Your task to perform on an android device: Open battery settings Image 0: 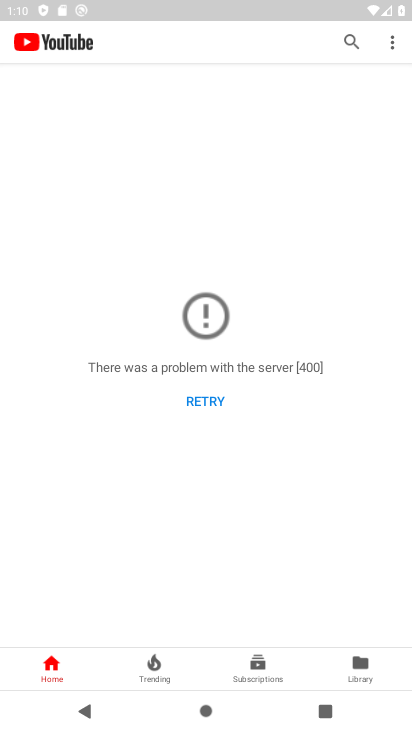
Step 0: press home button
Your task to perform on an android device: Open battery settings Image 1: 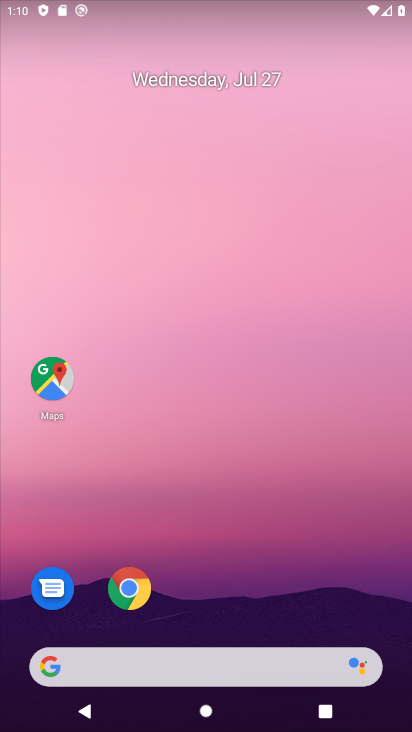
Step 1: drag from (233, 612) to (233, 21)
Your task to perform on an android device: Open battery settings Image 2: 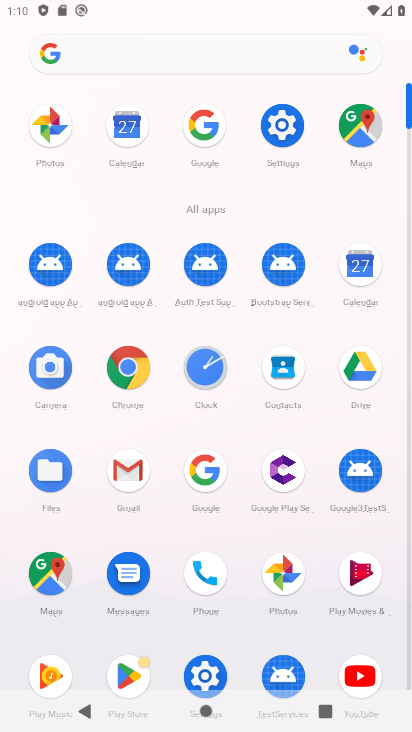
Step 2: click (294, 116)
Your task to perform on an android device: Open battery settings Image 3: 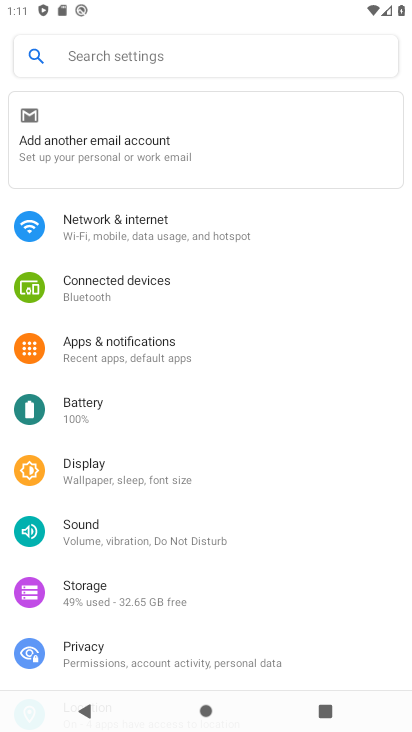
Step 3: click (93, 402)
Your task to perform on an android device: Open battery settings Image 4: 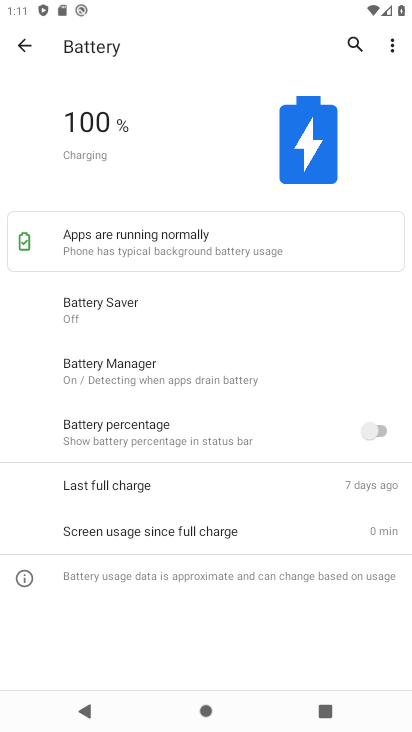
Step 4: task complete